Your task to perform on an android device: Open calendar and show me the third week of next month Image 0: 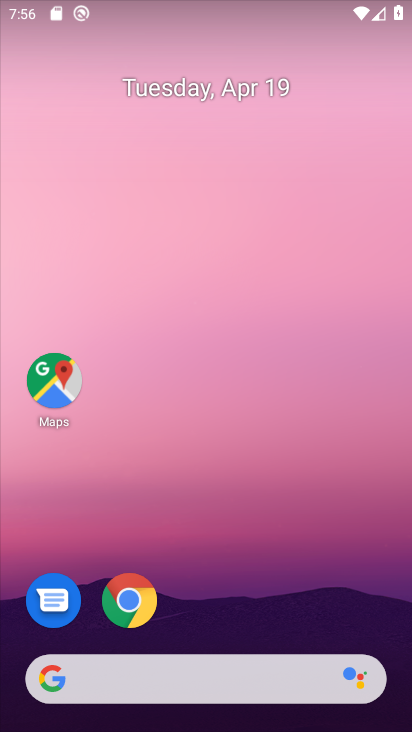
Step 0: drag from (359, 526) to (352, 96)
Your task to perform on an android device: Open calendar and show me the third week of next month Image 1: 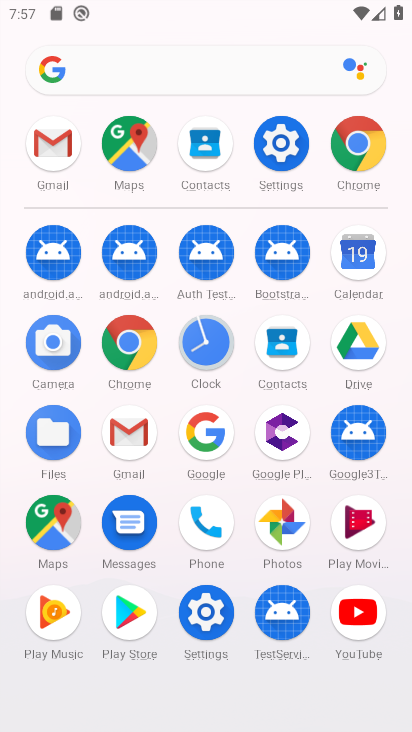
Step 1: click (364, 253)
Your task to perform on an android device: Open calendar and show me the third week of next month Image 2: 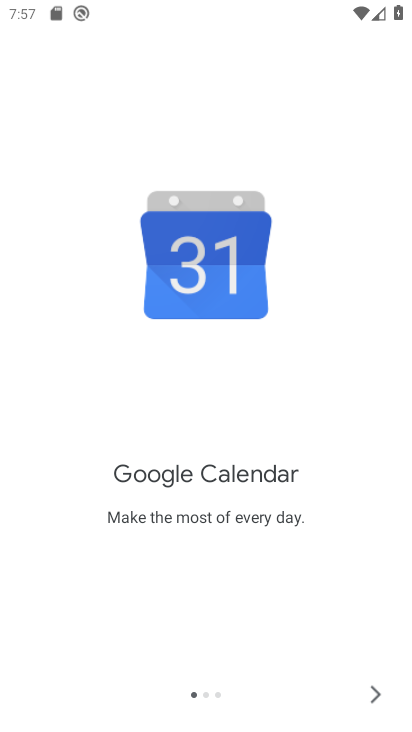
Step 2: click (369, 689)
Your task to perform on an android device: Open calendar and show me the third week of next month Image 3: 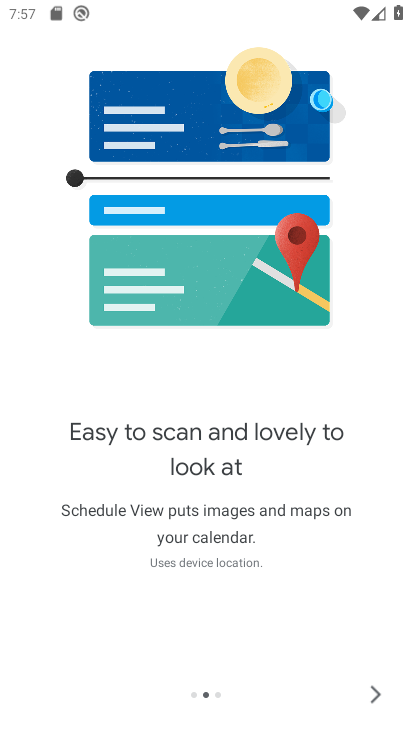
Step 3: click (371, 691)
Your task to perform on an android device: Open calendar and show me the third week of next month Image 4: 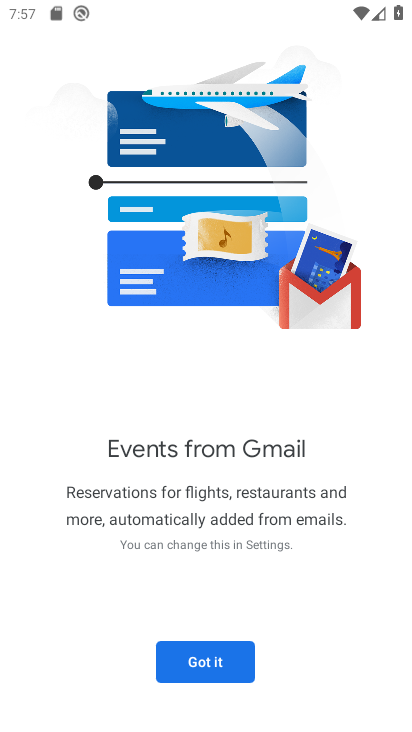
Step 4: click (234, 667)
Your task to perform on an android device: Open calendar and show me the third week of next month Image 5: 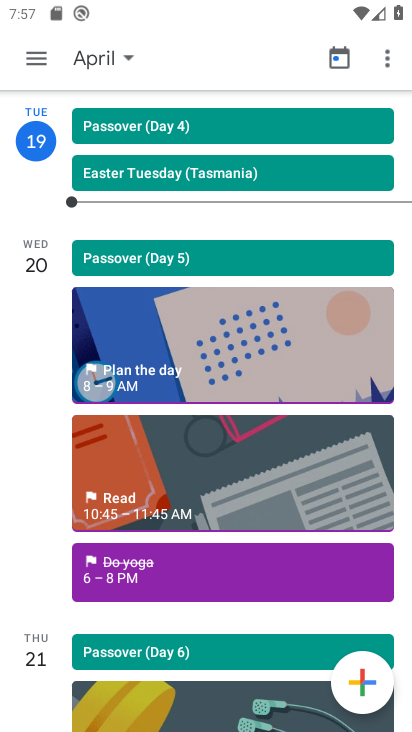
Step 5: click (126, 54)
Your task to perform on an android device: Open calendar and show me the third week of next month Image 6: 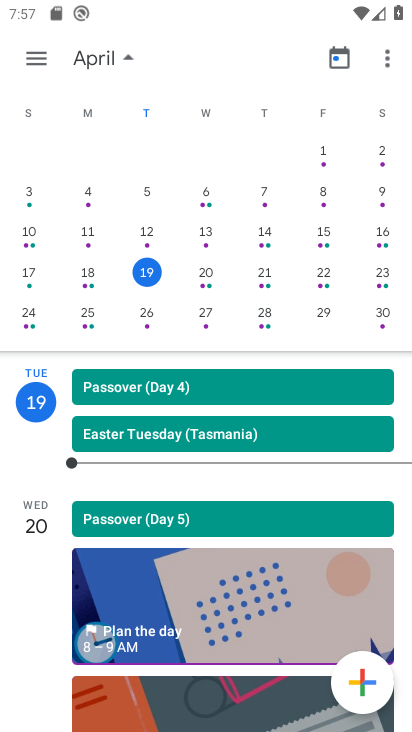
Step 6: drag from (334, 251) to (21, 248)
Your task to perform on an android device: Open calendar and show me the third week of next month Image 7: 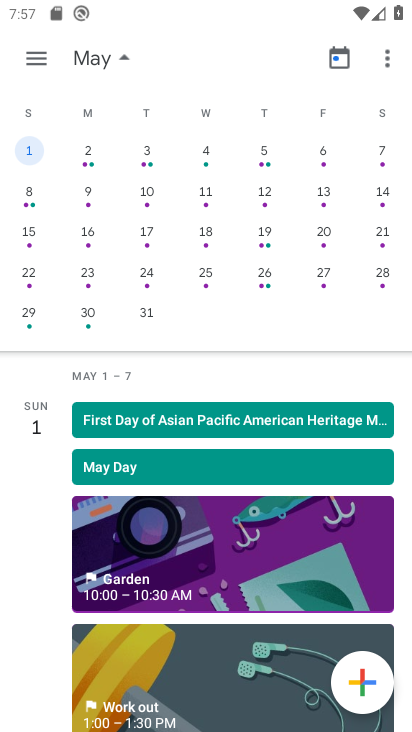
Step 7: click (86, 233)
Your task to perform on an android device: Open calendar and show me the third week of next month Image 8: 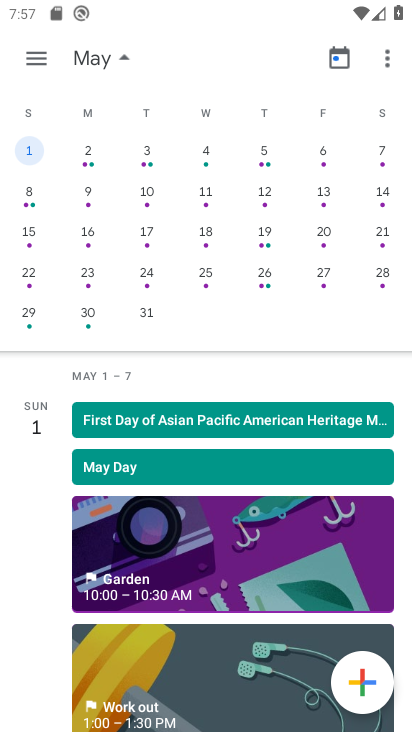
Step 8: click (101, 235)
Your task to perform on an android device: Open calendar and show me the third week of next month Image 9: 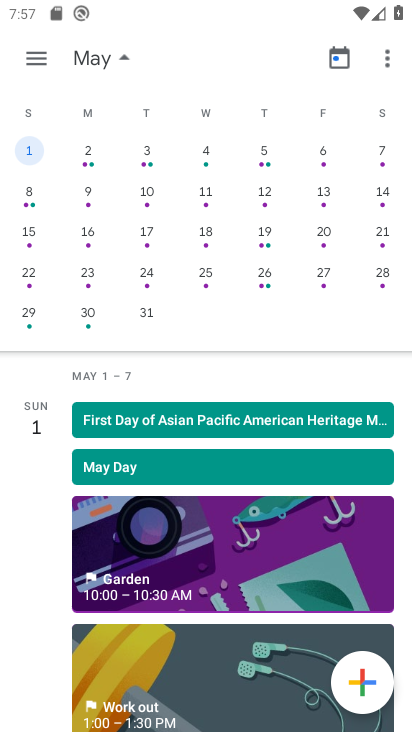
Step 9: click (96, 233)
Your task to perform on an android device: Open calendar and show me the third week of next month Image 10: 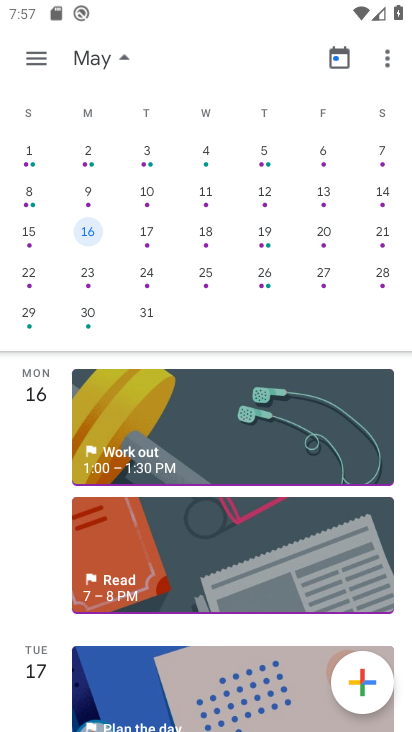
Step 10: task complete